Your task to perform on an android device: toggle improve location accuracy Image 0: 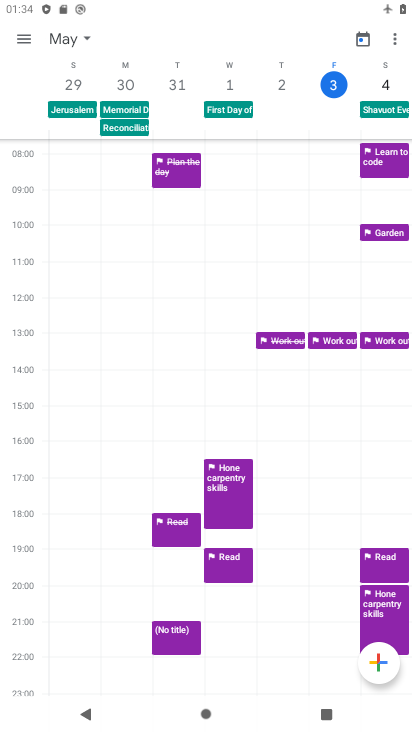
Step 0: drag from (264, 589) to (315, 264)
Your task to perform on an android device: toggle improve location accuracy Image 1: 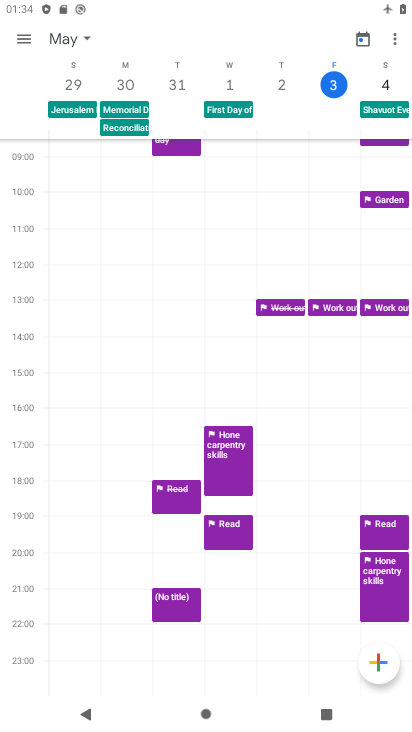
Step 1: press home button
Your task to perform on an android device: toggle improve location accuracy Image 2: 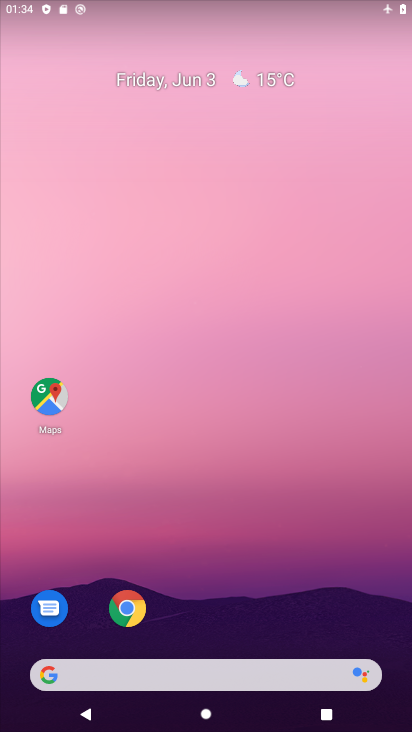
Step 2: drag from (326, 594) to (365, 176)
Your task to perform on an android device: toggle improve location accuracy Image 3: 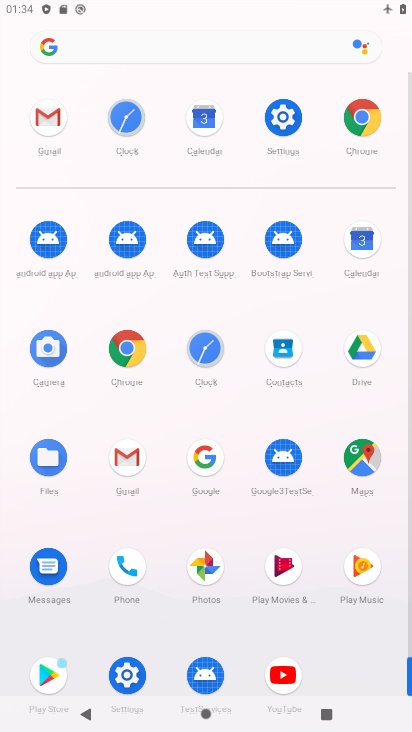
Step 3: click (284, 107)
Your task to perform on an android device: toggle improve location accuracy Image 4: 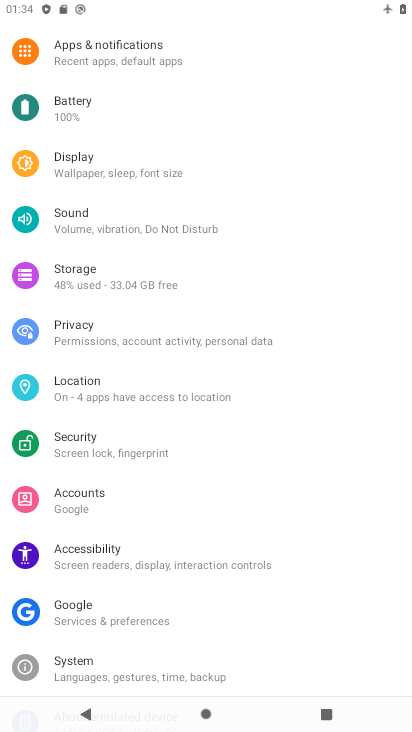
Step 4: drag from (228, 182) to (222, 373)
Your task to perform on an android device: toggle improve location accuracy Image 5: 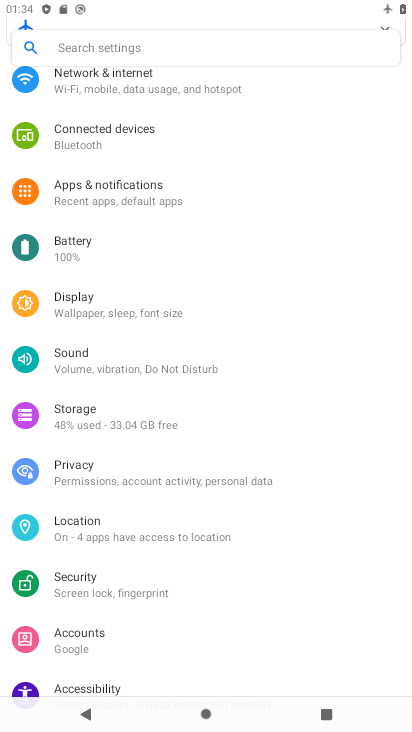
Step 5: click (155, 532)
Your task to perform on an android device: toggle improve location accuracy Image 6: 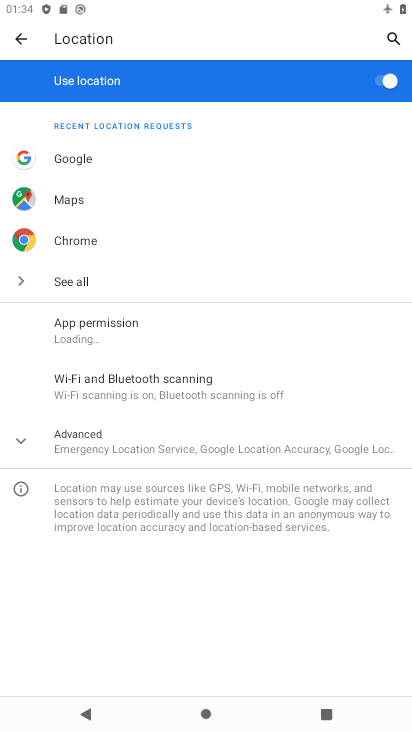
Step 6: click (143, 443)
Your task to perform on an android device: toggle improve location accuracy Image 7: 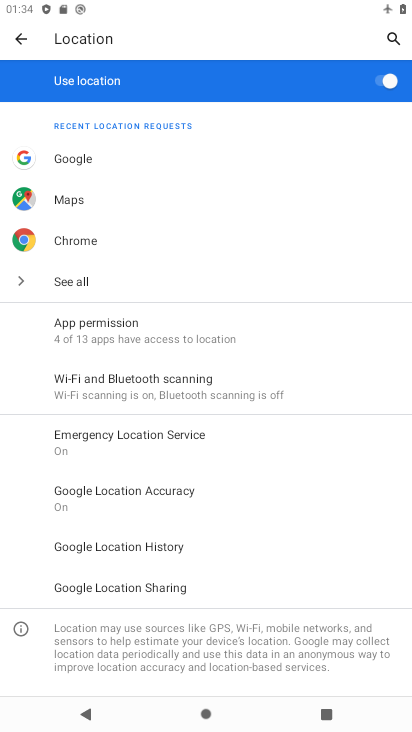
Step 7: click (167, 491)
Your task to perform on an android device: toggle improve location accuracy Image 8: 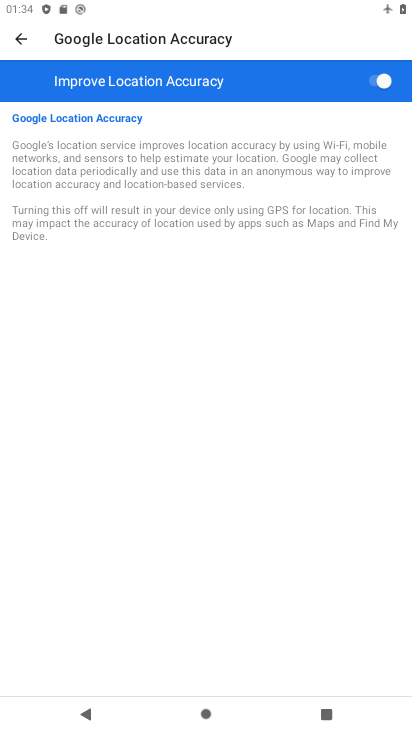
Step 8: click (391, 84)
Your task to perform on an android device: toggle improve location accuracy Image 9: 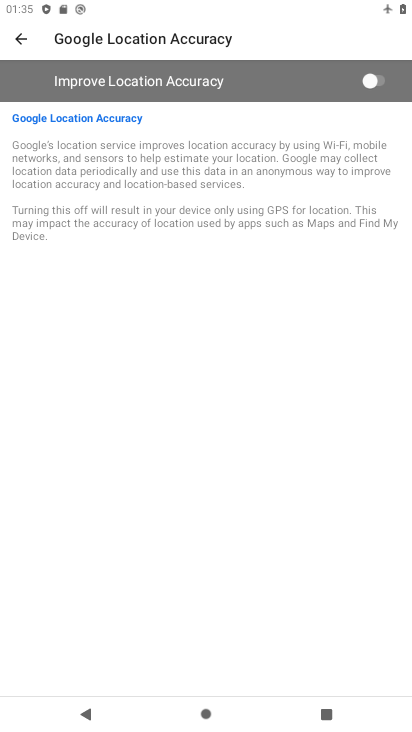
Step 9: task complete